Your task to perform on an android device: Open accessibility settings Image 0: 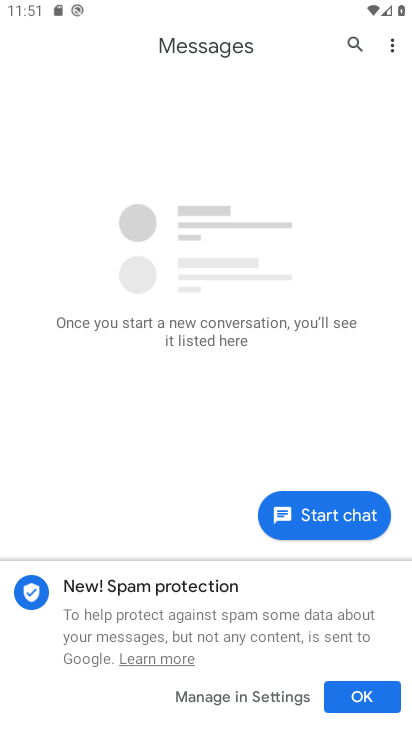
Step 0: press home button
Your task to perform on an android device: Open accessibility settings Image 1: 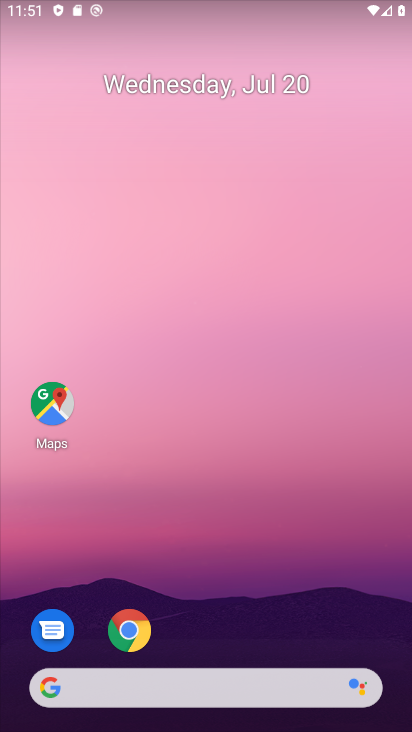
Step 1: drag from (224, 604) to (259, 65)
Your task to perform on an android device: Open accessibility settings Image 2: 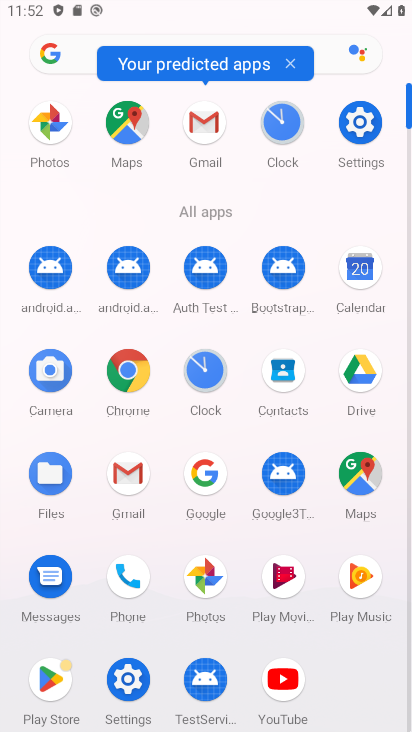
Step 2: click (123, 673)
Your task to perform on an android device: Open accessibility settings Image 3: 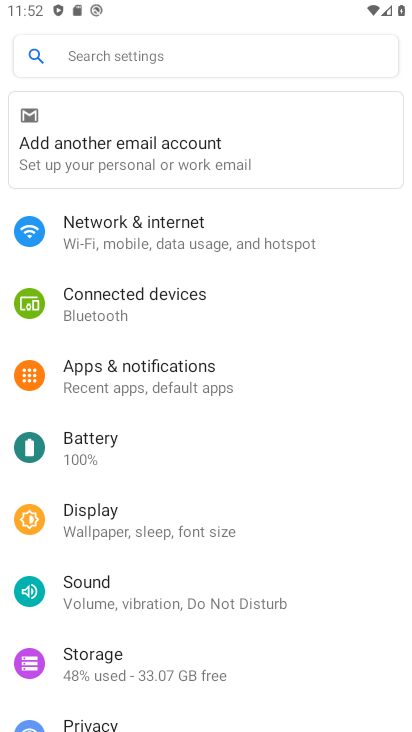
Step 3: drag from (180, 696) to (180, 165)
Your task to perform on an android device: Open accessibility settings Image 4: 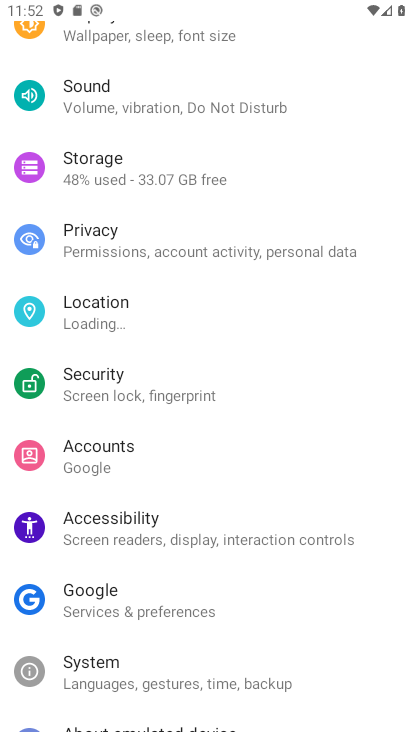
Step 4: click (171, 513)
Your task to perform on an android device: Open accessibility settings Image 5: 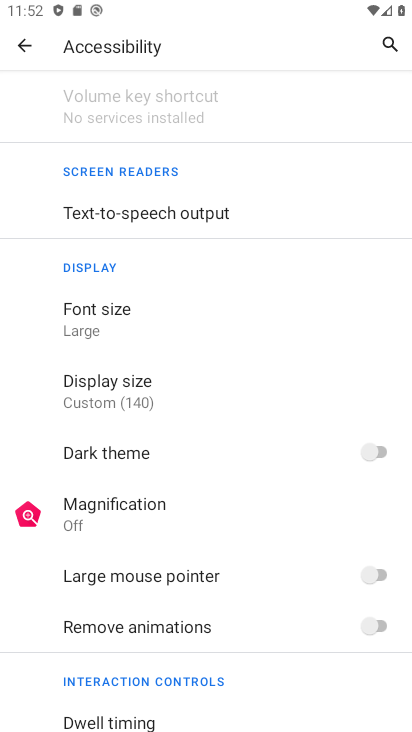
Step 5: task complete